Your task to perform on an android device: change the clock display to show seconds Image 0: 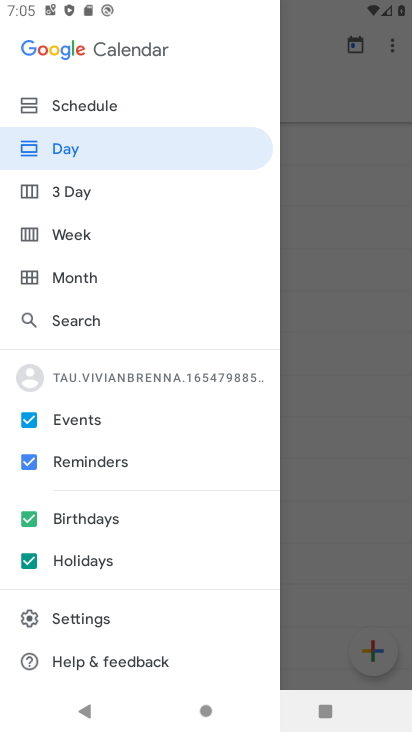
Step 0: press home button
Your task to perform on an android device: change the clock display to show seconds Image 1: 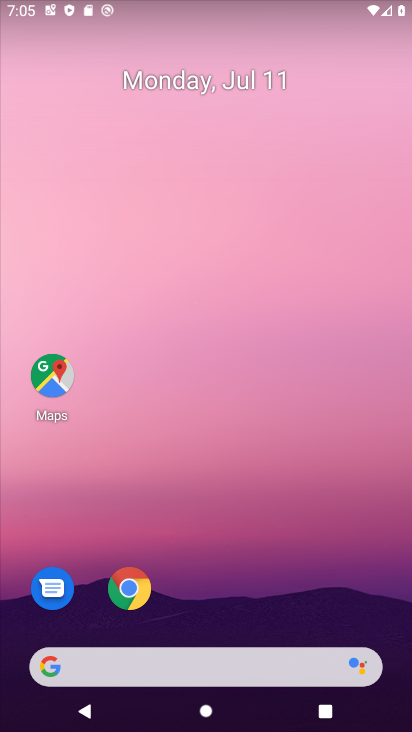
Step 1: drag from (380, 589) to (208, 79)
Your task to perform on an android device: change the clock display to show seconds Image 2: 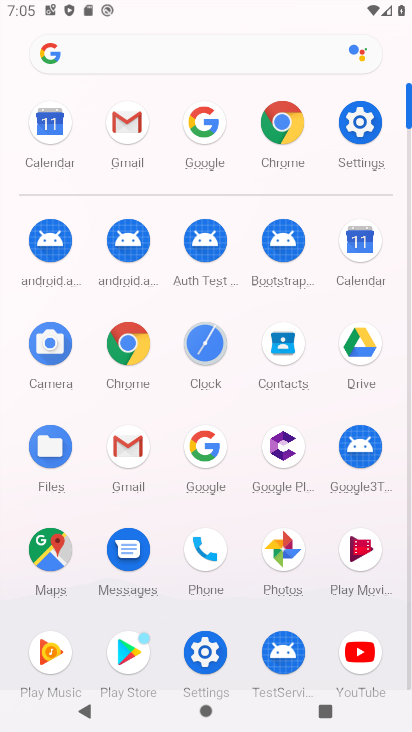
Step 2: click (191, 336)
Your task to perform on an android device: change the clock display to show seconds Image 3: 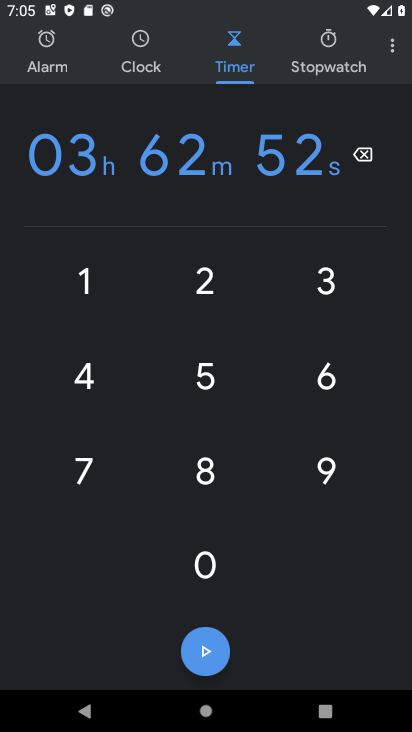
Step 3: click (387, 39)
Your task to perform on an android device: change the clock display to show seconds Image 4: 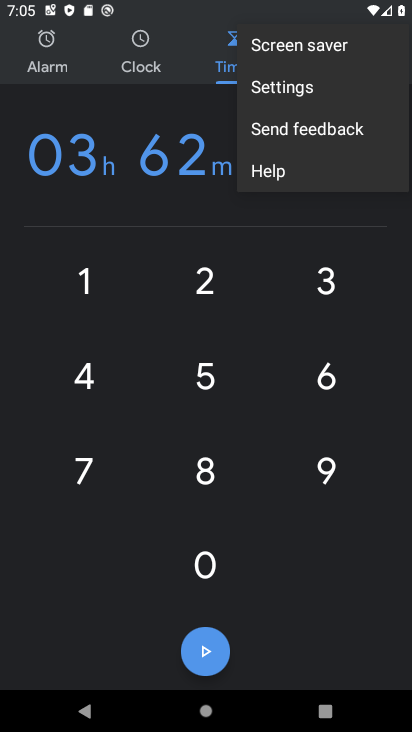
Step 4: click (276, 74)
Your task to perform on an android device: change the clock display to show seconds Image 5: 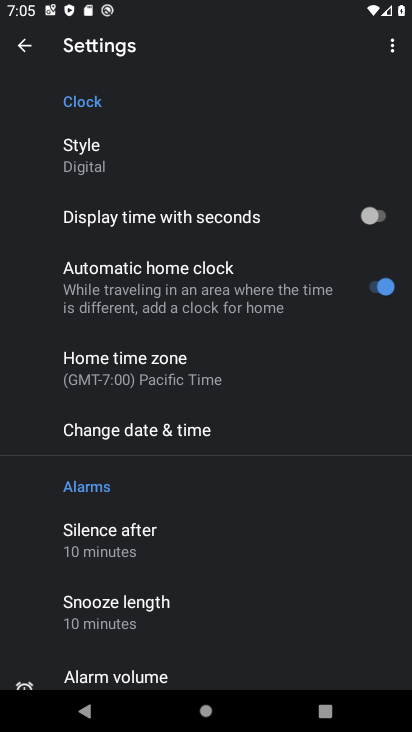
Step 5: click (358, 220)
Your task to perform on an android device: change the clock display to show seconds Image 6: 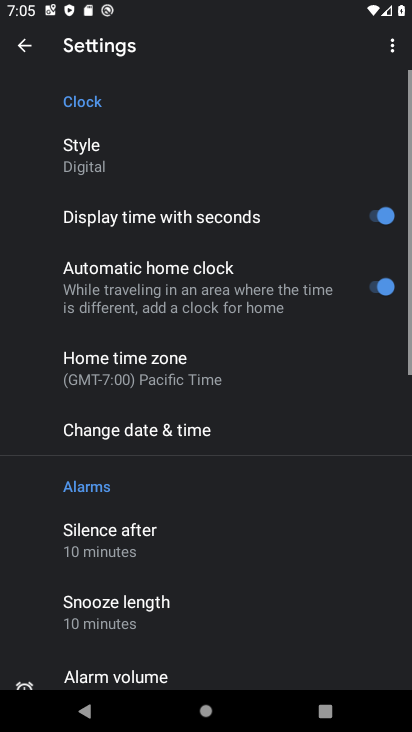
Step 6: task complete